Your task to perform on an android device: Search for vegetarian restaurants on Maps Image 0: 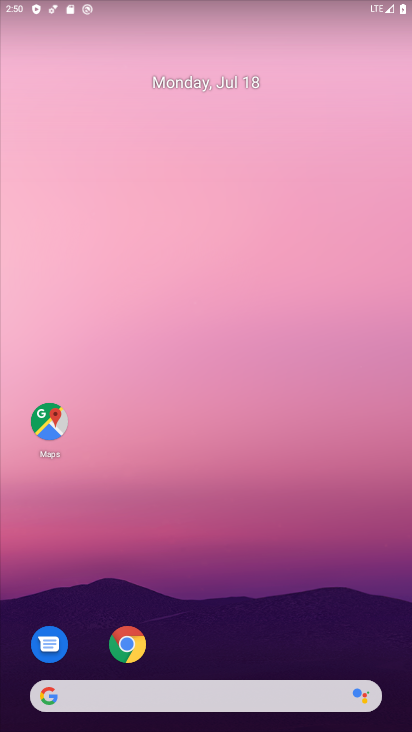
Step 0: click (48, 419)
Your task to perform on an android device: Search for vegetarian restaurants on Maps Image 1: 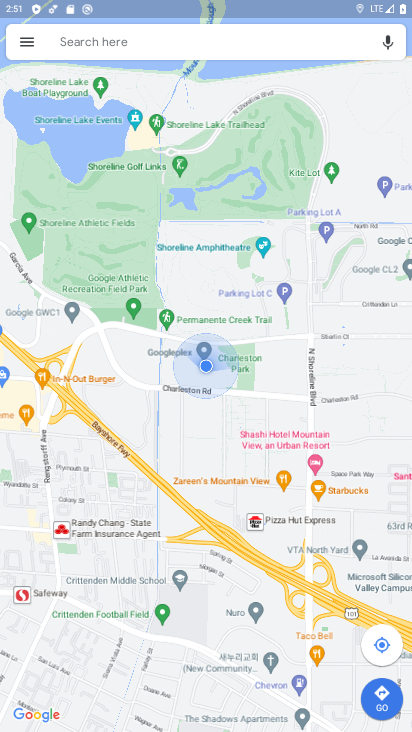
Step 1: click (104, 43)
Your task to perform on an android device: Search for vegetarian restaurants on Maps Image 2: 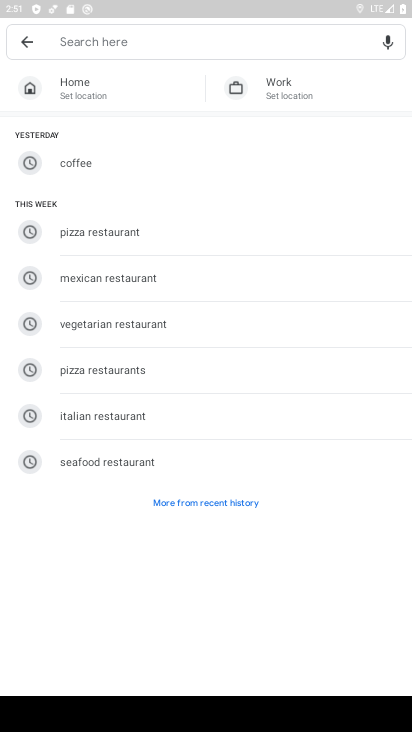
Step 2: click (127, 324)
Your task to perform on an android device: Search for vegetarian restaurants on Maps Image 3: 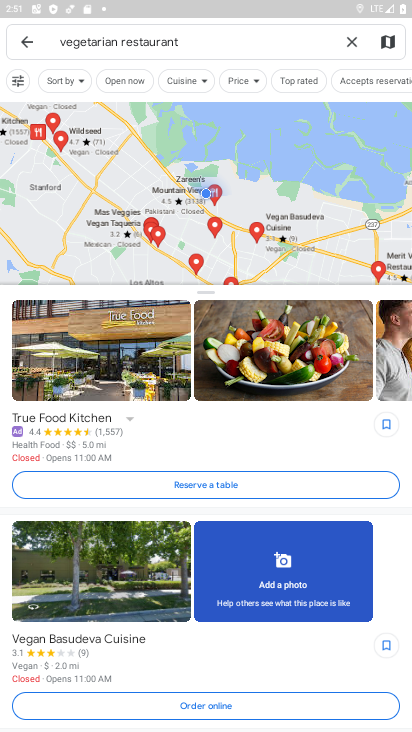
Step 3: task complete